Your task to perform on an android device: turn on translation in the chrome app Image 0: 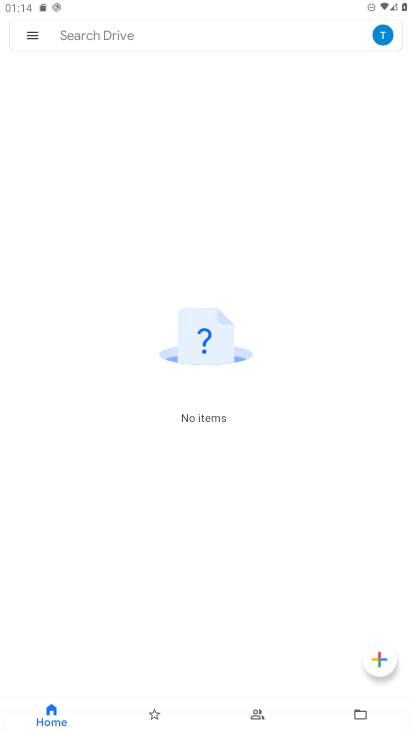
Step 0: press home button
Your task to perform on an android device: turn on translation in the chrome app Image 1: 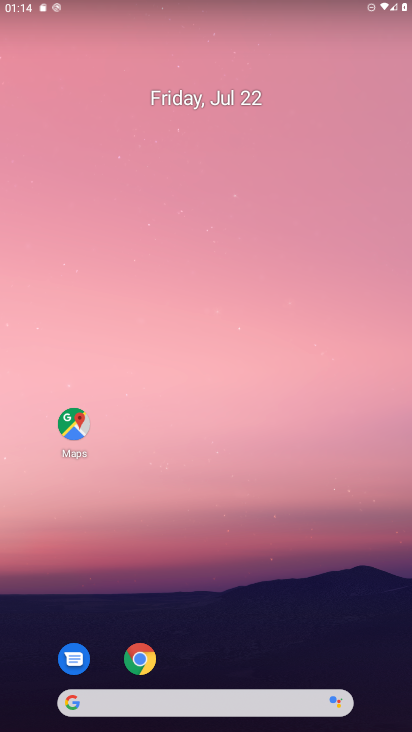
Step 1: click (142, 663)
Your task to perform on an android device: turn on translation in the chrome app Image 2: 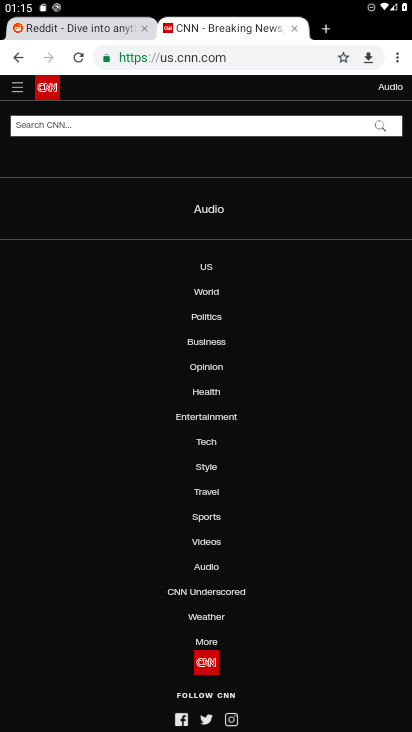
Step 2: click (397, 55)
Your task to perform on an android device: turn on translation in the chrome app Image 3: 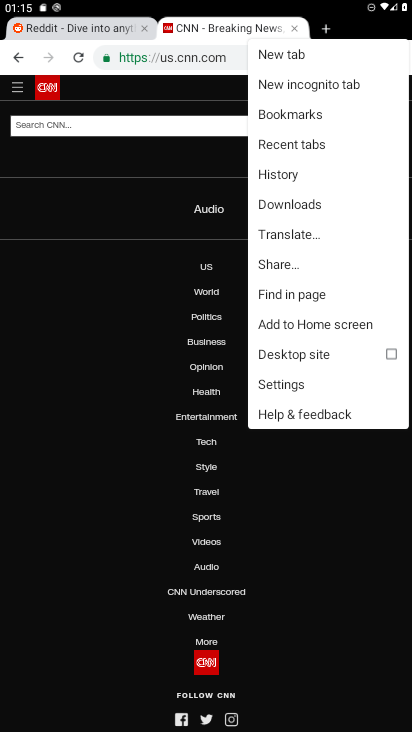
Step 3: click (291, 384)
Your task to perform on an android device: turn on translation in the chrome app Image 4: 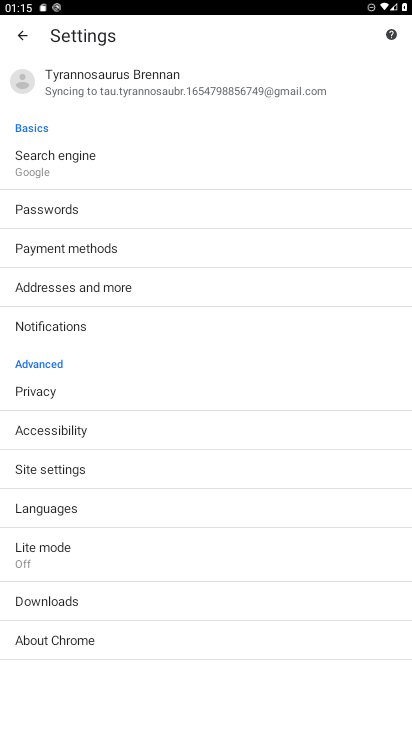
Step 4: click (60, 514)
Your task to perform on an android device: turn on translation in the chrome app Image 5: 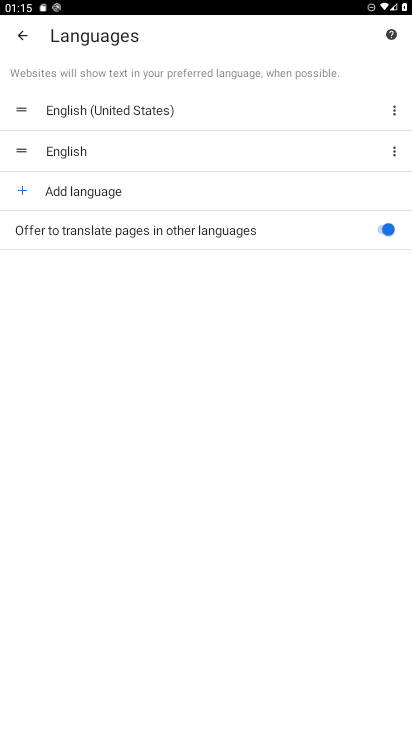
Step 5: task complete